Your task to perform on an android device: move a message to another label in the gmail app Image 0: 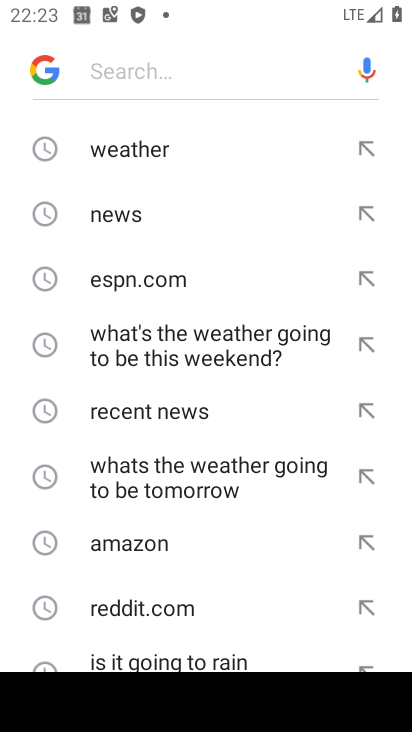
Step 0: press home button
Your task to perform on an android device: move a message to another label in the gmail app Image 1: 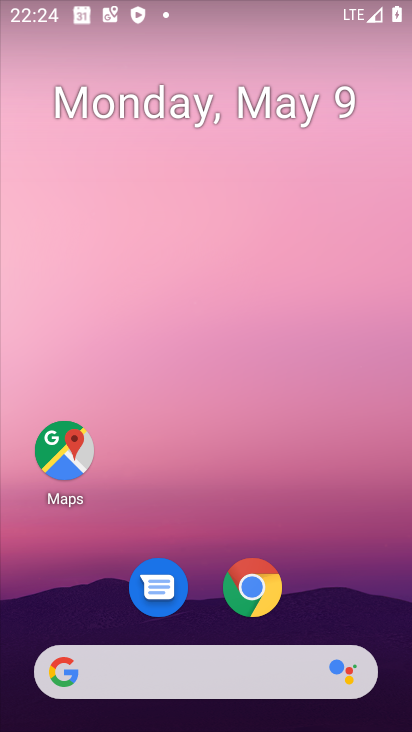
Step 1: drag from (202, 529) to (271, 356)
Your task to perform on an android device: move a message to another label in the gmail app Image 2: 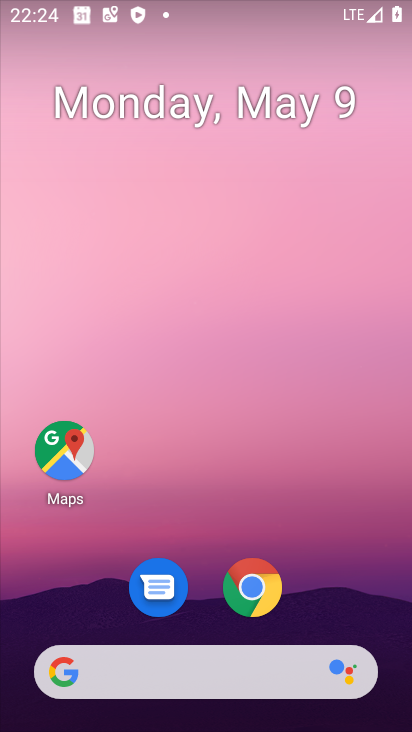
Step 2: drag from (203, 608) to (141, 71)
Your task to perform on an android device: move a message to another label in the gmail app Image 3: 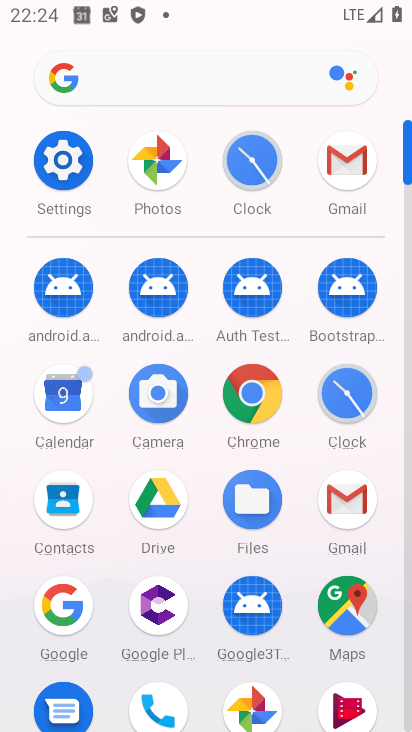
Step 3: click (342, 182)
Your task to perform on an android device: move a message to another label in the gmail app Image 4: 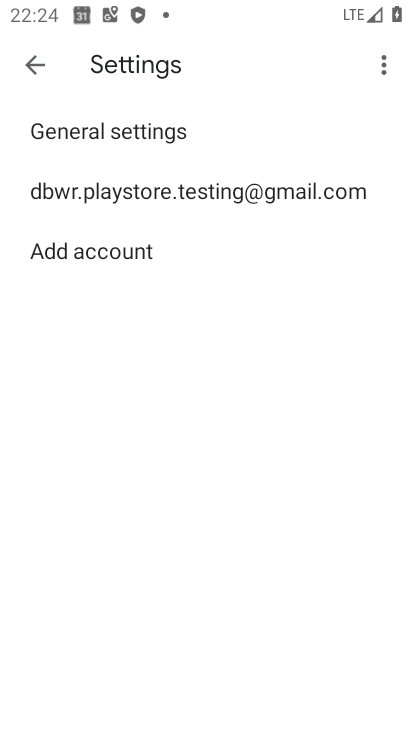
Step 4: click (13, 68)
Your task to perform on an android device: move a message to another label in the gmail app Image 5: 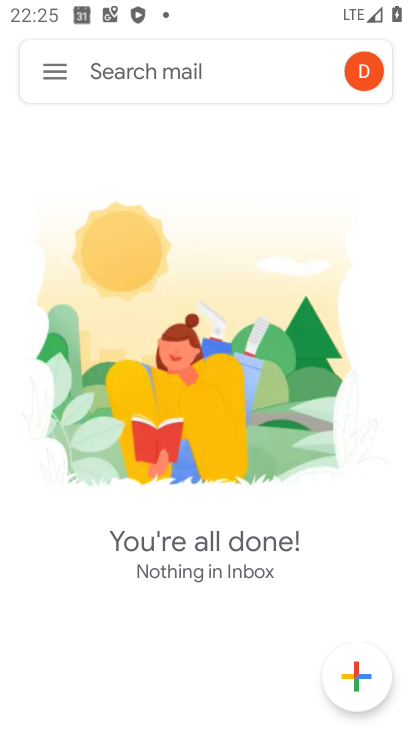
Step 5: click (180, 528)
Your task to perform on an android device: move a message to another label in the gmail app Image 6: 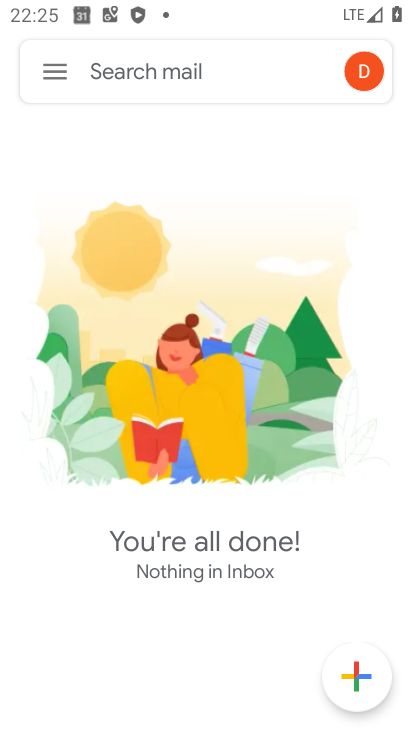
Step 6: task complete